Your task to perform on an android device: Open eBay Image 0: 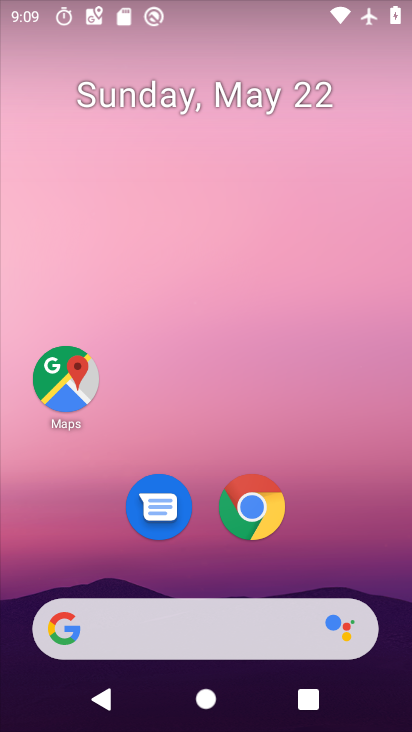
Step 0: click (168, 611)
Your task to perform on an android device: Open eBay Image 1: 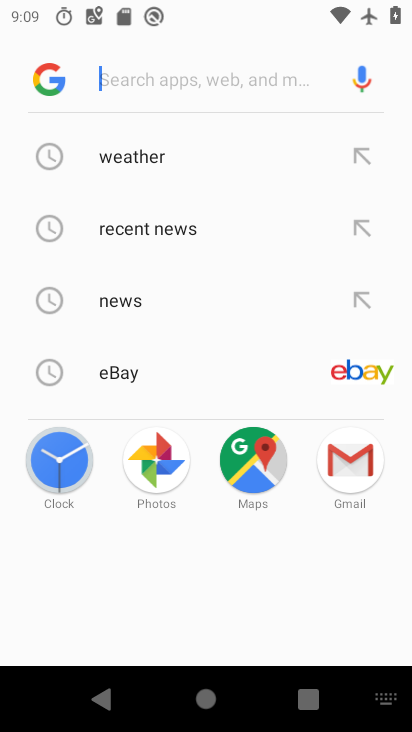
Step 1: click (158, 386)
Your task to perform on an android device: Open eBay Image 2: 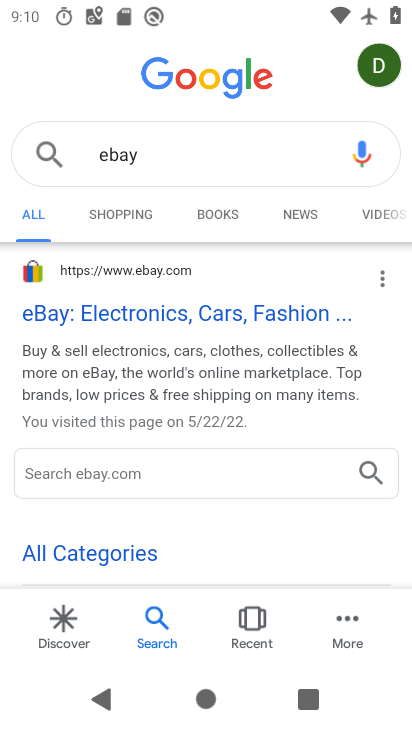
Step 2: click (334, 331)
Your task to perform on an android device: Open eBay Image 3: 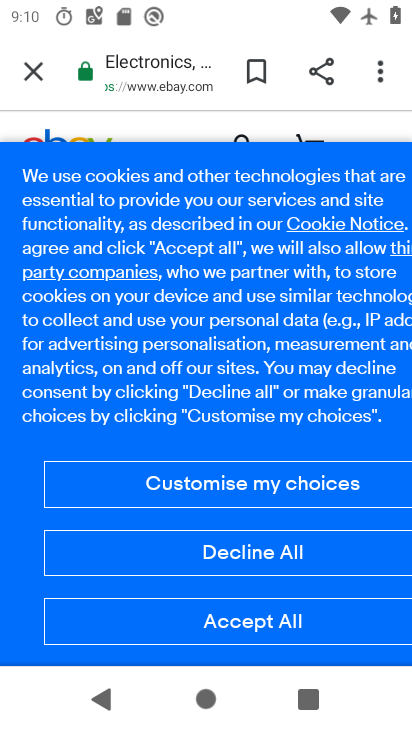
Step 3: task complete